Your task to perform on an android device: See recent photos Image 0: 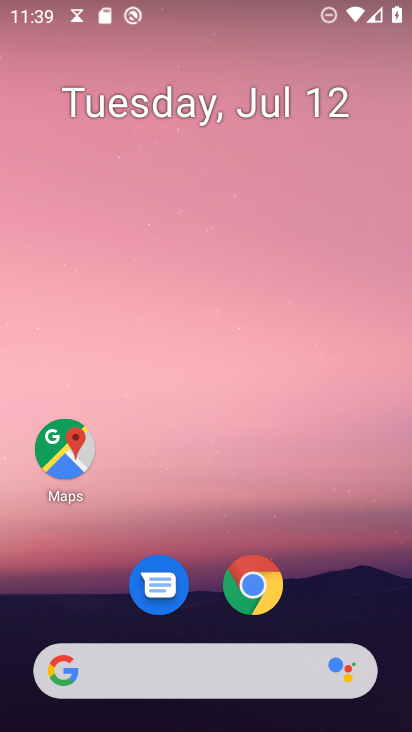
Step 0: drag from (198, 656) to (288, 22)
Your task to perform on an android device: See recent photos Image 1: 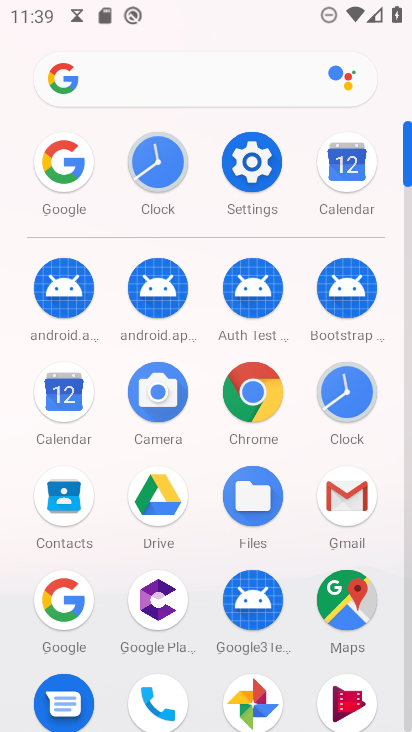
Step 1: click (250, 694)
Your task to perform on an android device: See recent photos Image 2: 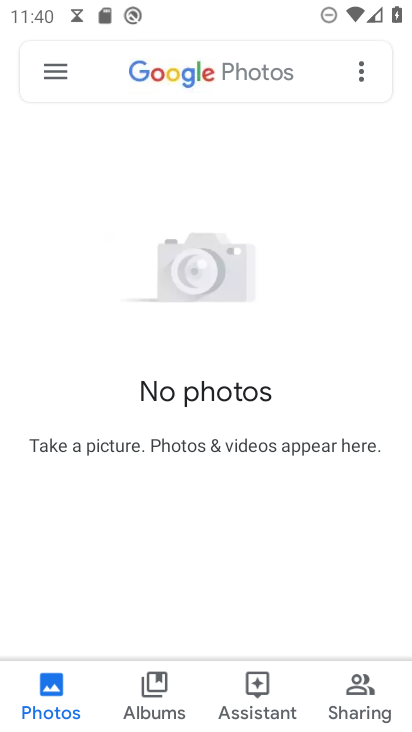
Step 2: click (145, 696)
Your task to perform on an android device: See recent photos Image 3: 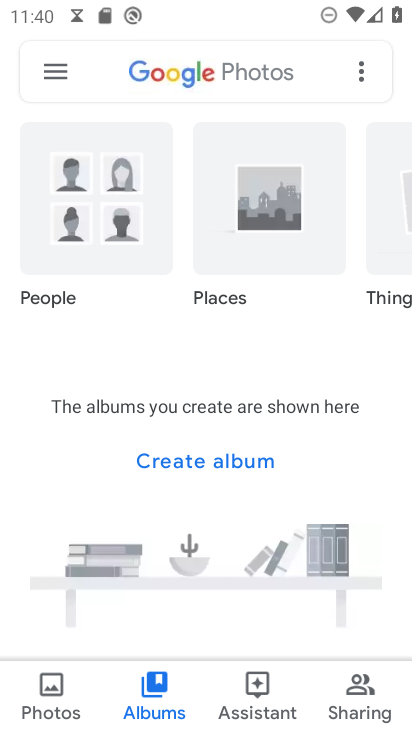
Step 3: task complete